Your task to perform on an android device: Open privacy settings Image 0: 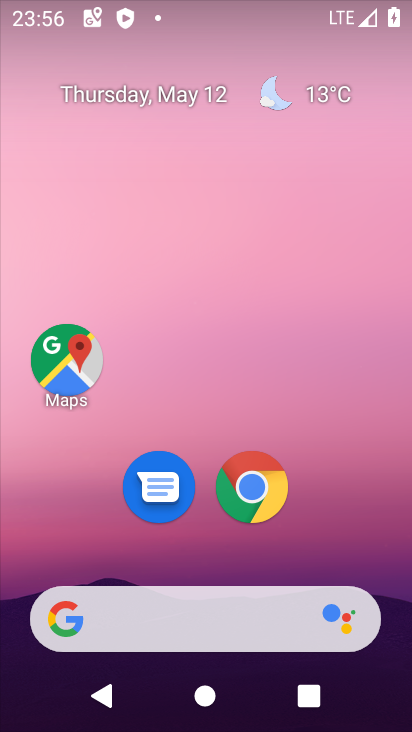
Step 0: drag from (223, 572) to (310, 111)
Your task to perform on an android device: Open privacy settings Image 1: 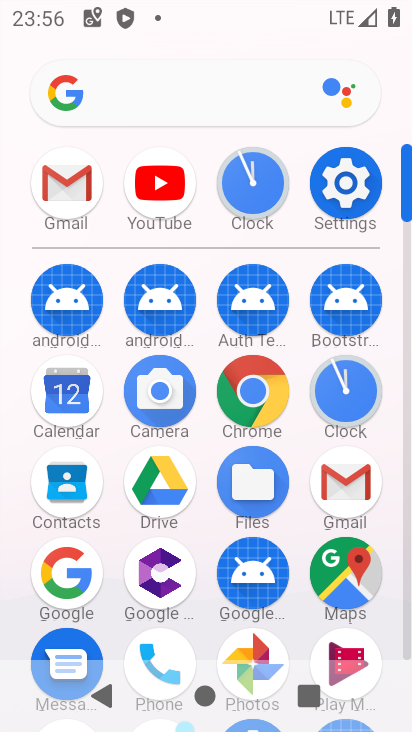
Step 1: click (362, 214)
Your task to perform on an android device: Open privacy settings Image 2: 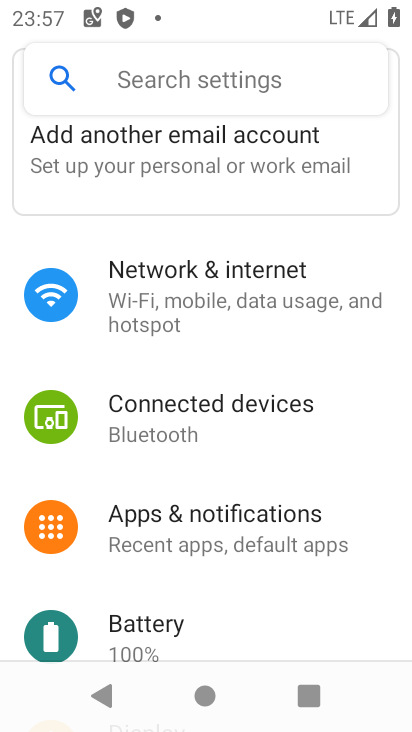
Step 2: drag from (113, 588) to (195, 185)
Your task to perform on an android device: Open privacy settings Image 3: 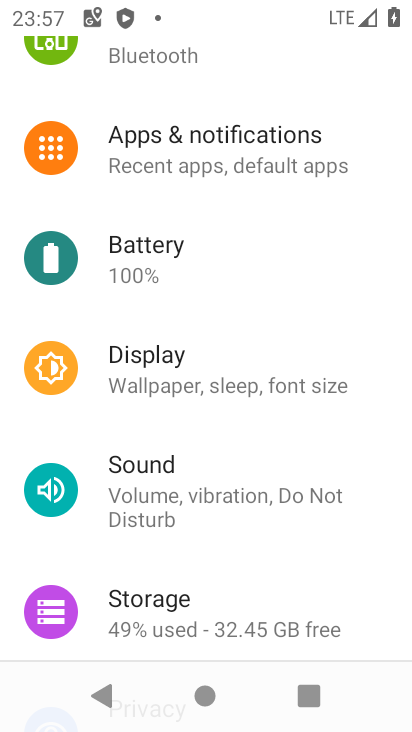
Step 3: drag from (73, 584) to (107, 486)
Your task to perform on an android device: Open privacy settings Image 4: 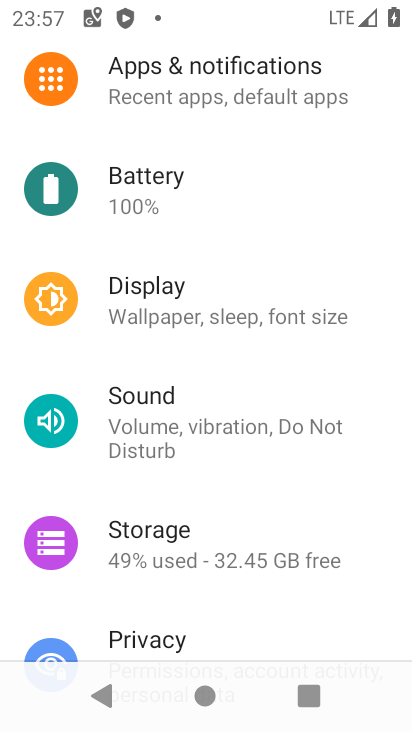
Step 4: click (168, 637)
Your task to perform on an android device: Open privacy settings Image 5: 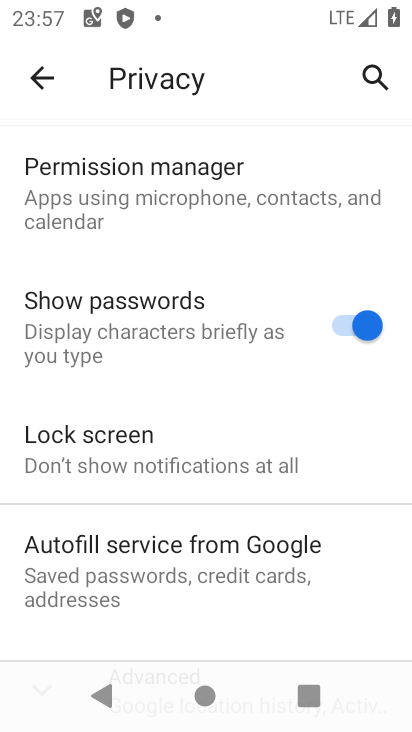
Step 5: task complete